Your task to perform on an android device: Find coffee shops on Maps Image 0: 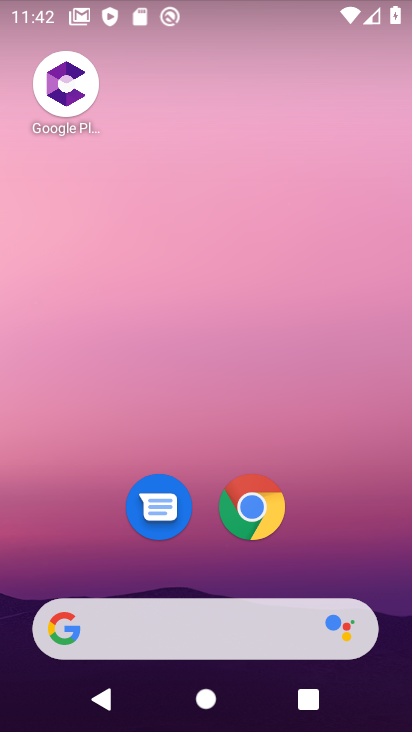
Step 0: drag from (342, 560) to (337, 184)
Your task to perform on an android device: Find coffee shops on Maps Image 1: 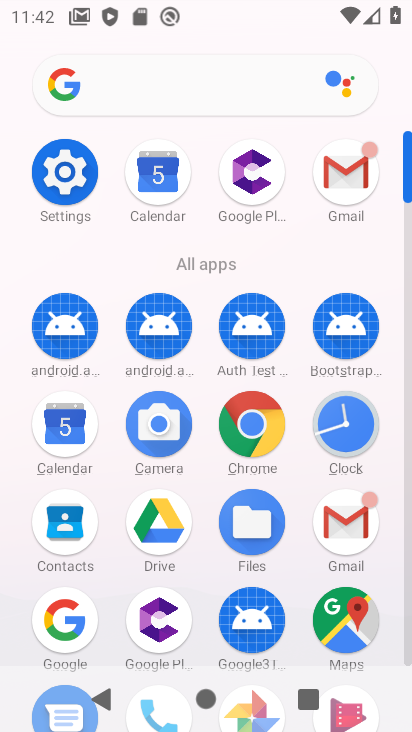
Step 1: click (335, 621)
Your task to perform on an android device: Find coffee shops on Maps Image 2: 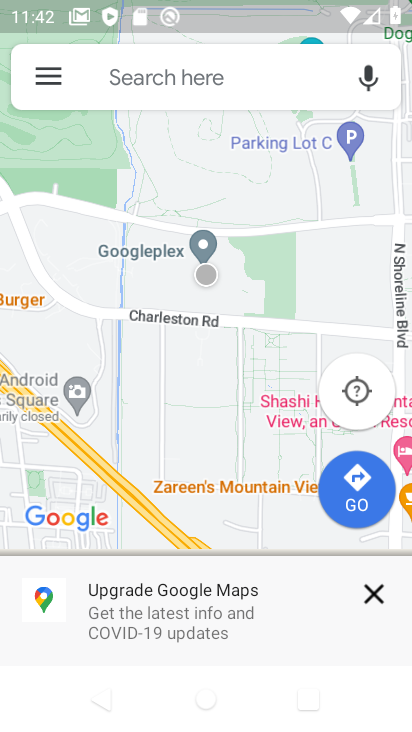
Step 2: click (159, 84)
Your task to perform on an android device: Find coffee shops on Maps Image 3: 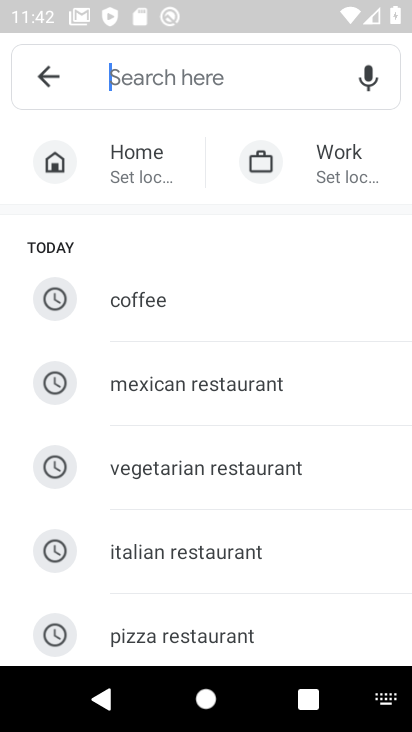
Step 3: click (147, 306)
Your task to perform on an android device: Find coffee shops on Maps Image 4: 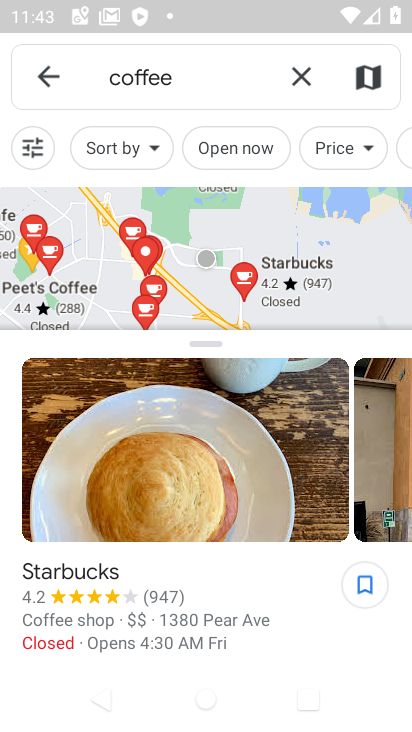
Step 4: task complete